Your task to perform on an android device: Show me recent news Image 0: 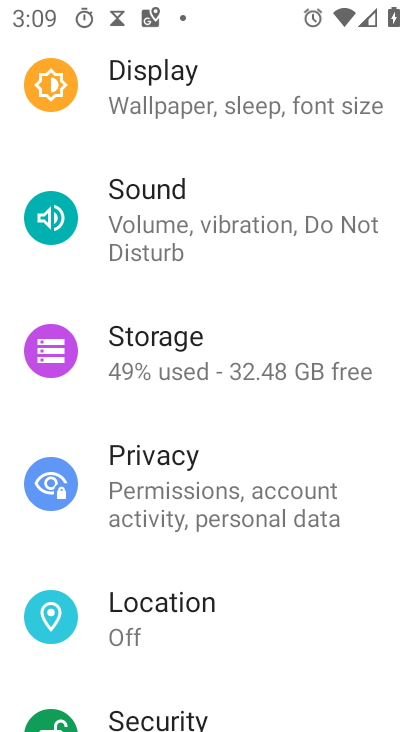
Step 0: press back button
Your task to perform on an android device: Show me recent news Image 1: 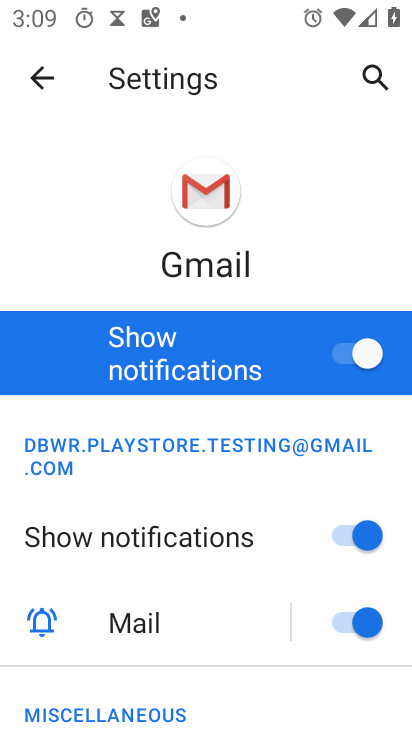
Step 1: press back button
Your task to perform on an android device: Show me recent news Image 2: 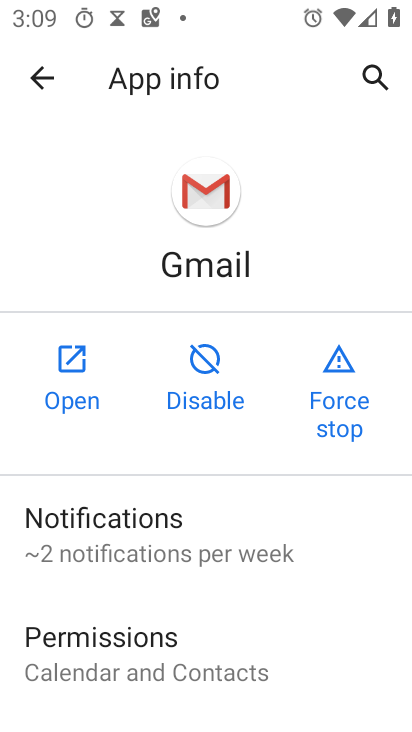
Step 2: press back button
Your task to perform on an android device: Show me recent news Image 3: 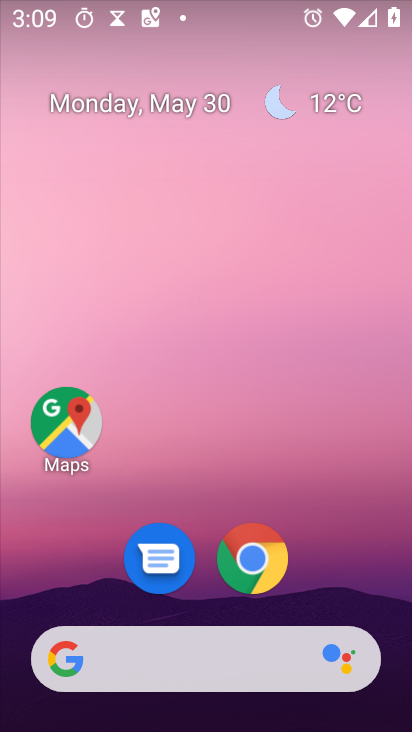
Step 3: click (146, 656)
Your task to perform on an android device: Show me recent news Image 4: 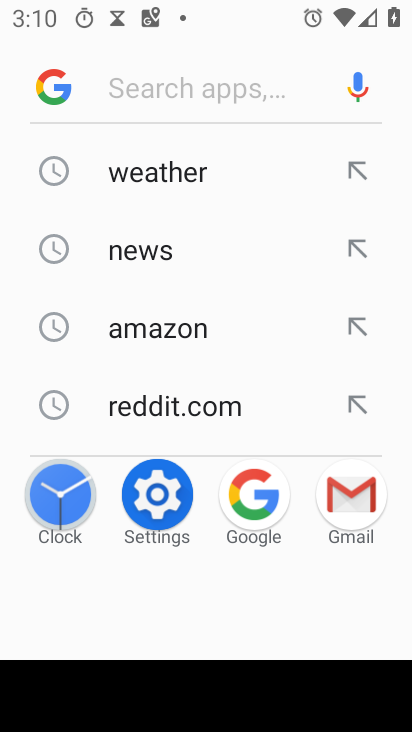
Step 4: click (134, 244)
Your task to perform on an android device: Show me recent news Image 5: 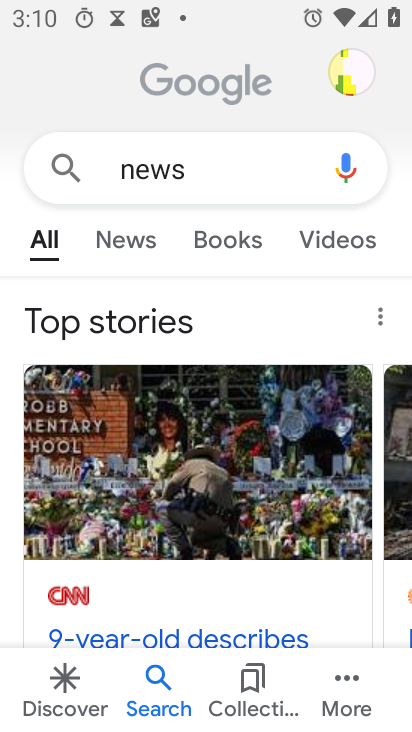
Step 5: task complete